Your task to perform on an android device: Do I have any events this weekend? Image 0: 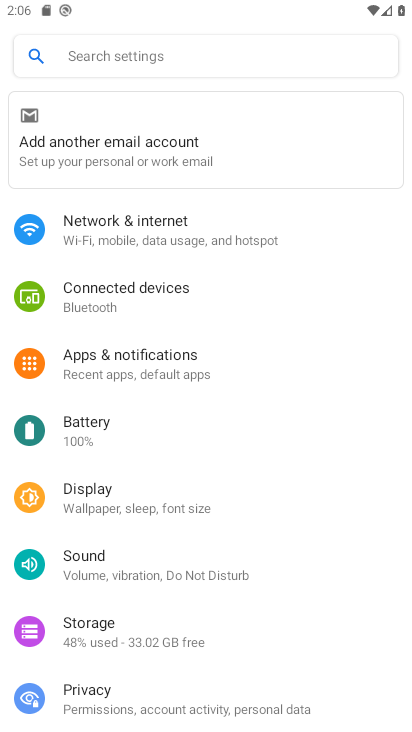
Step 0: press home button
Your task to perform on an android device: Do I have any events this weekend? Image 1: 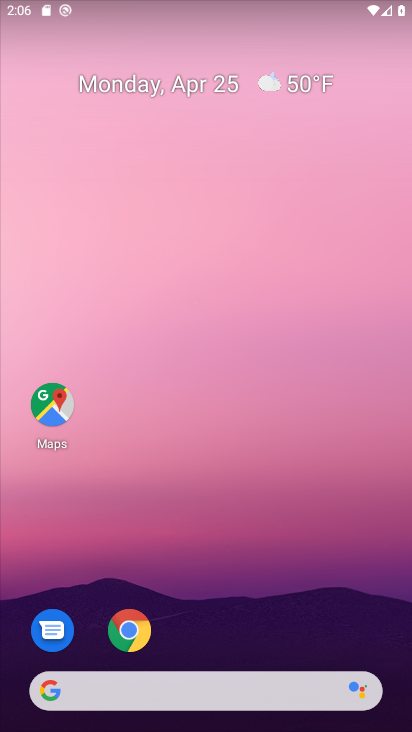
Step 1: click (180, 89)
Your task to perform on an android device: Do I have any events this weekend? Image 2: 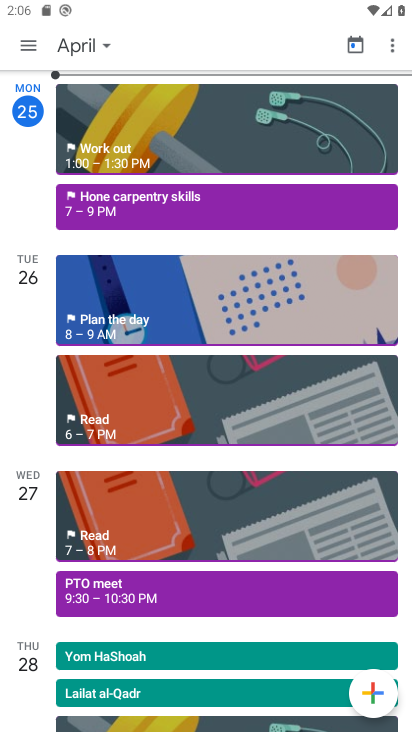
Step 2: click (180, 89)
Your task to perform on an android device: Do I have any events this weekend? Image 3: 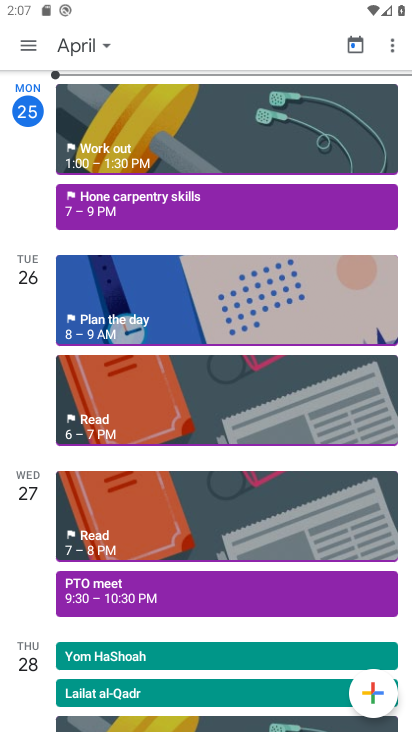
Step 3: click (66, 42)
Your task to perform on an android device: Do I have any events this weekend? Image 4: 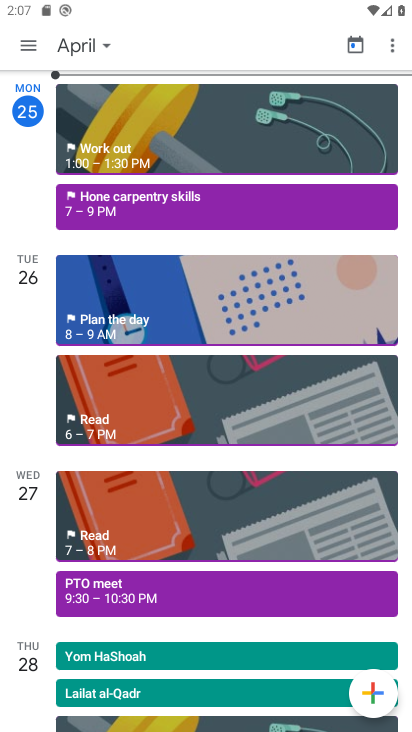
Step 4: click (88, 47)
Your task to perform on an android device: Do I have any events this weekend? Image 5: 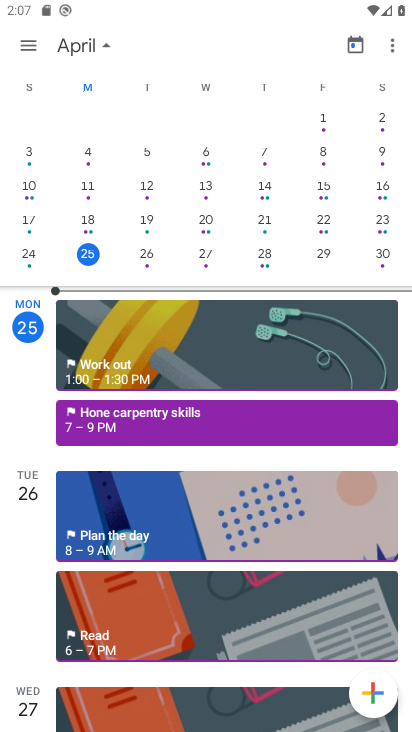
Step 5: click (380, 257)
Your task to perform on an android device: Do I have any events this weekend? Image 6: 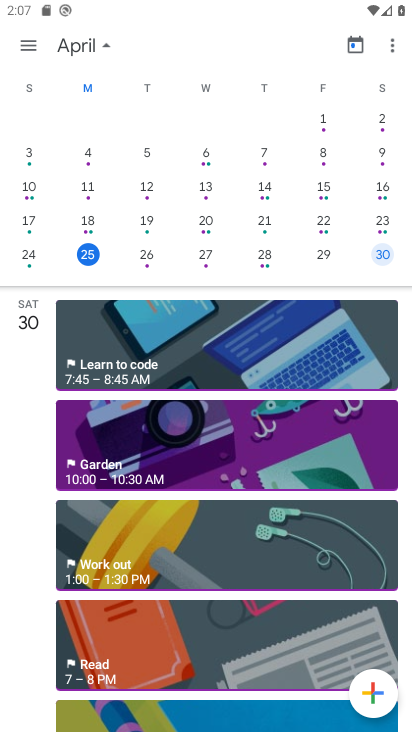
Step 6: task complete